Your task to perform on an android device: What's the weather going to be tomorrow? Image 0: 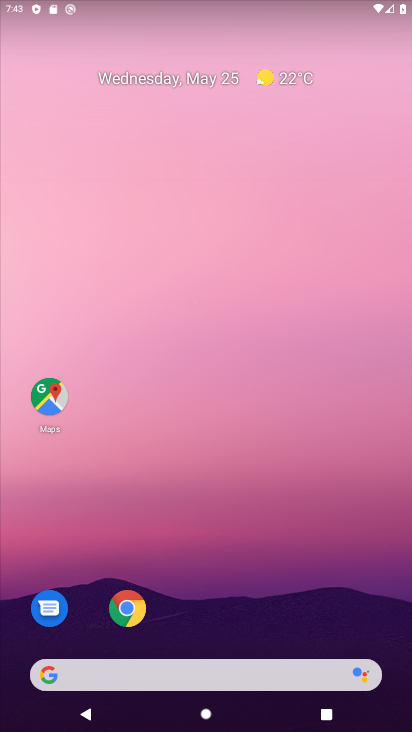
Step 0: drag from (266, 600) to (237, 85)
Your task to perform on an android device: What's the weather going to be tomorrow? Image 1: 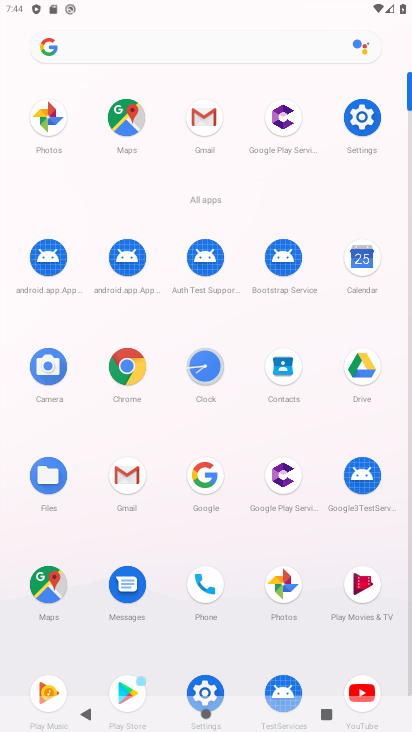
Step 1: click (203, 474)
Your task to perform on an android device: What's the weather going to be tomorrow? Image 2: 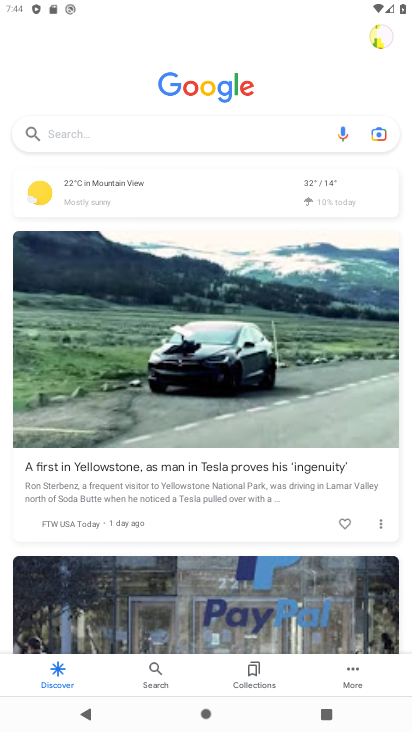
Step 2: click (188, 133)
Your task to perform on an android device: What's the weather going to be tomorrow? Image 3: 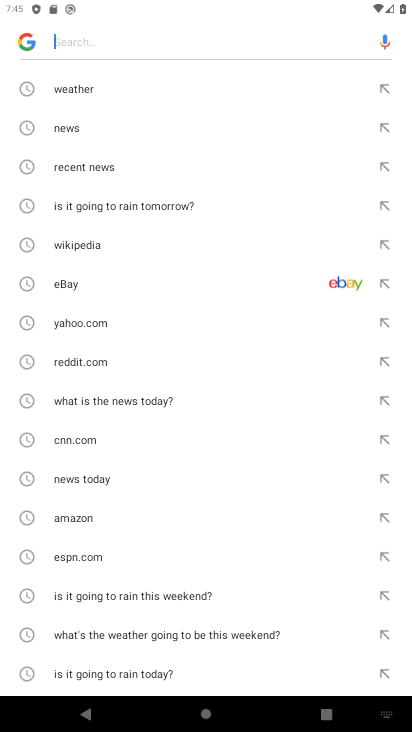
Step 3: type "What's the weather going to be tomorrow"
Your task to perform on an android device: What's the weather going to be tomorrow? Image 4: 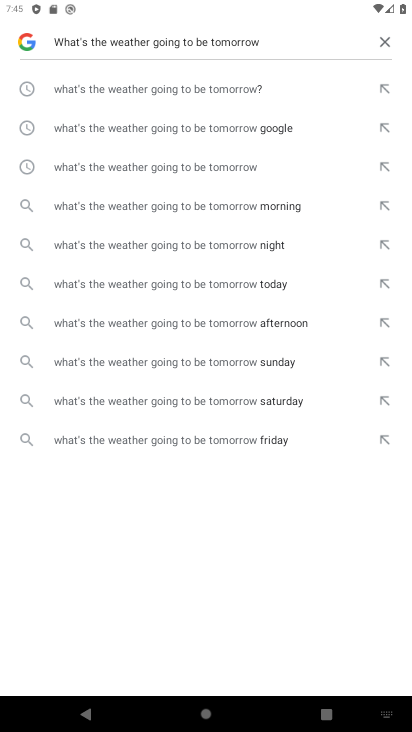
Step 4: click (211, 126)
Your task to perform on an android device: What's the weather going to be tomorrow? Image 5: 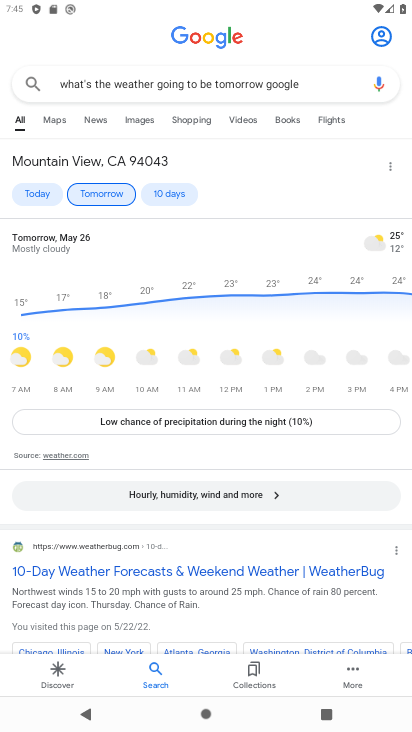
Step 5: task complete